Your task to perform on an android device: toggle priority inbox in the gmail app Image 0: 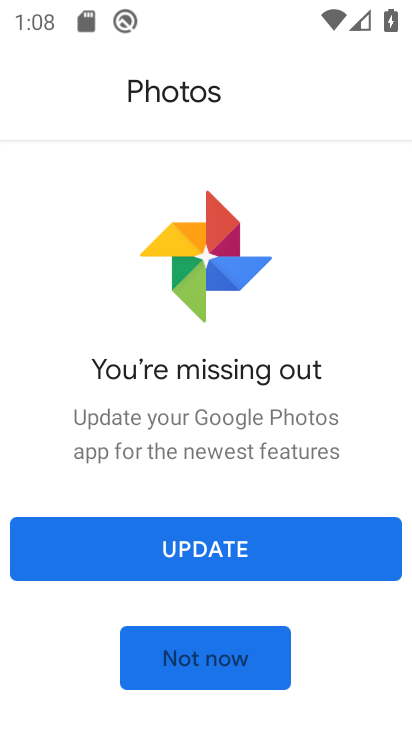
Step 0: press home button
Your task to perform on an android device: toggle priority inbox in the gmail app Image 1: 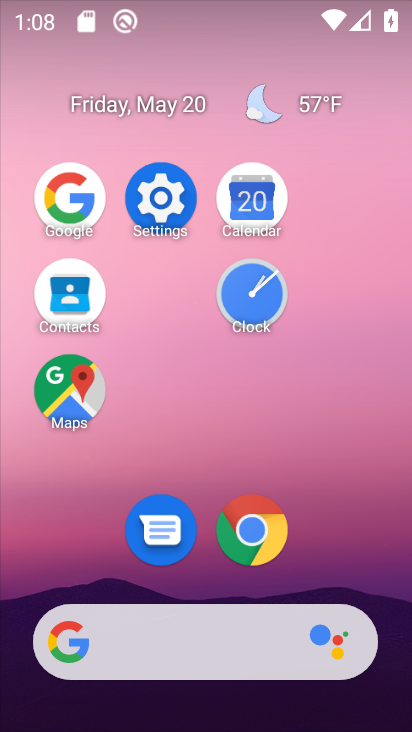
Step 1: drag from (369, 521) to (362, 176)
Your task to perform on an android device: toggle priority inbox in the gmail app Image 2: 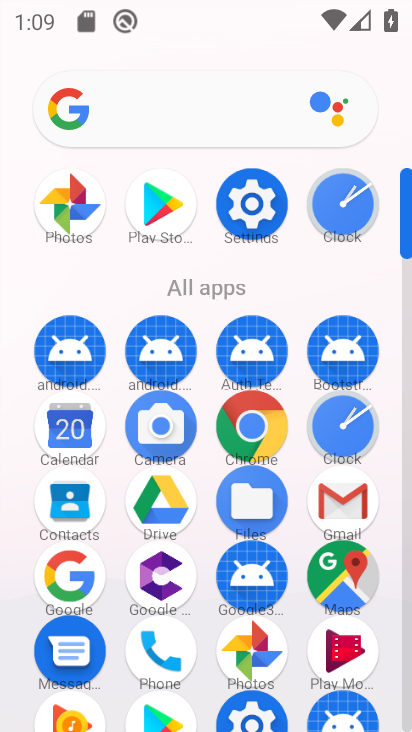
Step 2: drag from (355, 506) to (188, 306)
Your task to perform on an android device: toggle priority inbox in the gmail app Image 3: 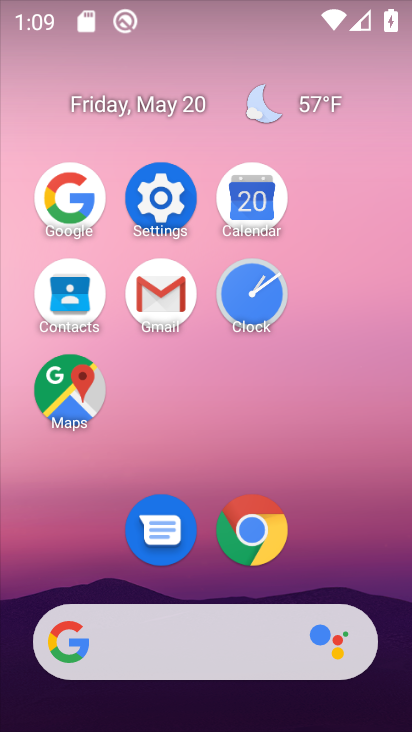
Step 3: click (183, 288)
Your task to perform on an android device: toggle priority inbox in the gmail app Image 4: 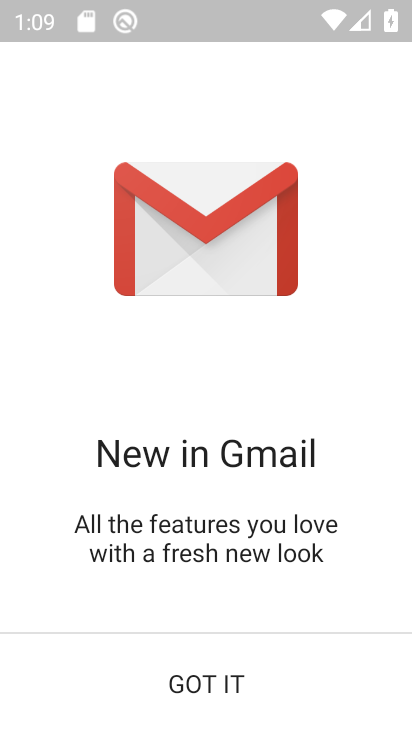
Step 4: click (280, 683)
Your task to perform on an android device: toggle priority inbox in the gmail app Image 5: 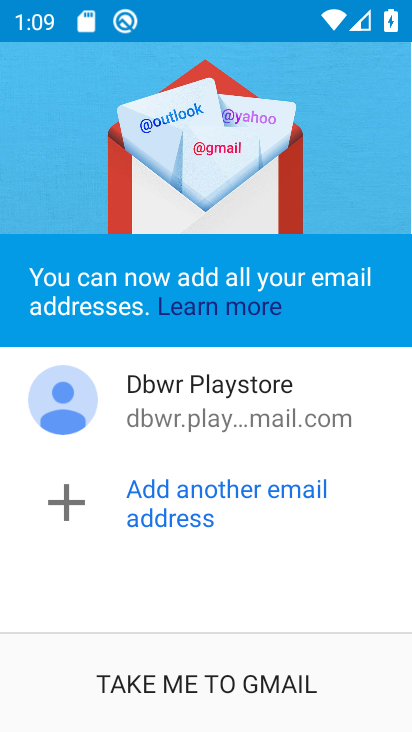
Step 5: click (280, 683)
Your task to perform on an android device: toggle priority inbox in the gmail app Image 6: 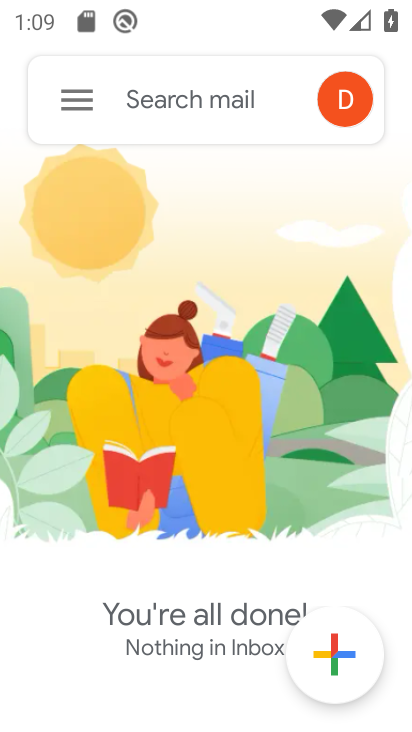
Step 6: click (85, 108)
Your task to perform on an android device: toggle priority inbox in the gmail app Image 7: 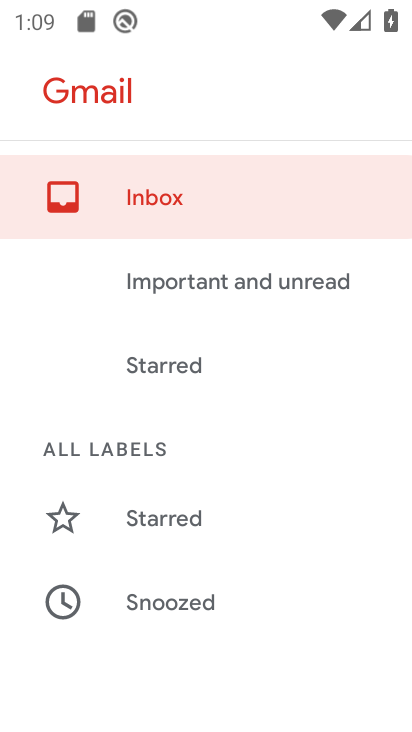
Step 7: drag from (138, 541) to (206, 120)
Your task to perform on an android device: toggle priority inbox in the gmail app Image 8: 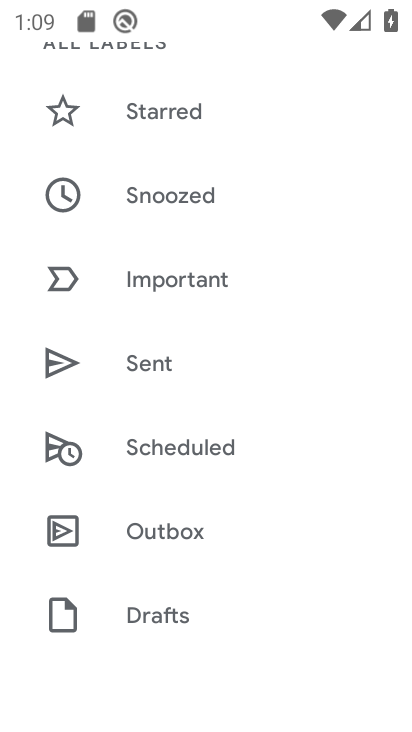
Step 8: drag from (217, 590) to (216, 175)
Your task to perform on an android device: toggle priority inbox in the gmail app Image 9: 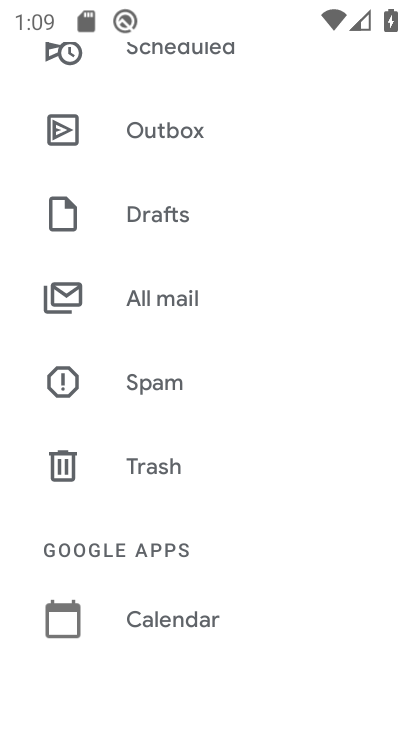
Step 9: drag from (211, 616) to (228, 174)
Your task to perform on an android device: toggle priority inbox in the gmail app Image 10: 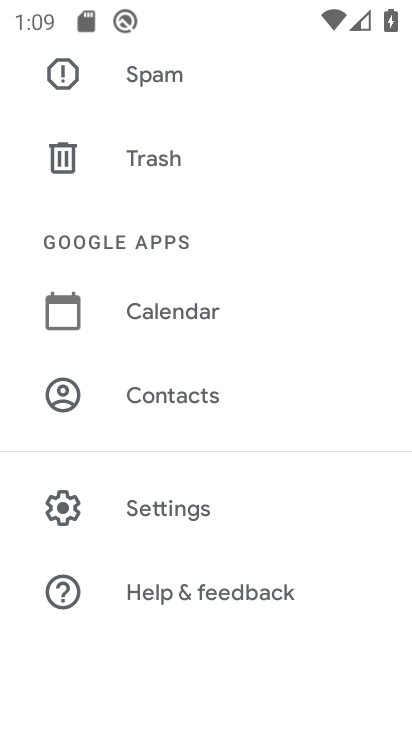
Step 10: click (229, 504)
Your task to perform on an android device: toggle priority inbox in the gmail app Image 11: 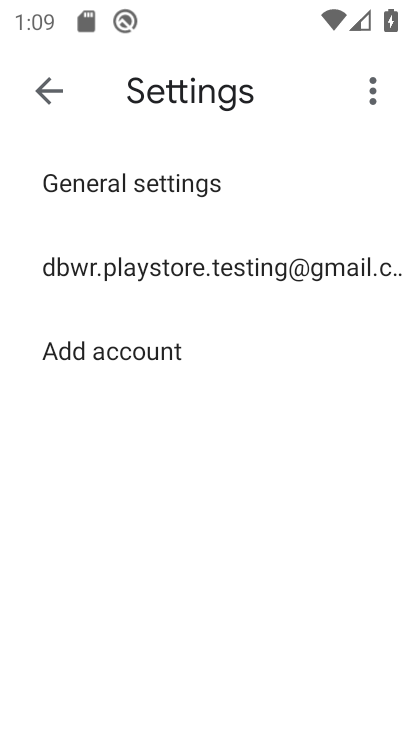
Step 11: click (201, 259)
Your task to perform on an android device: toggle priority inbox in the gmail app Image 12: 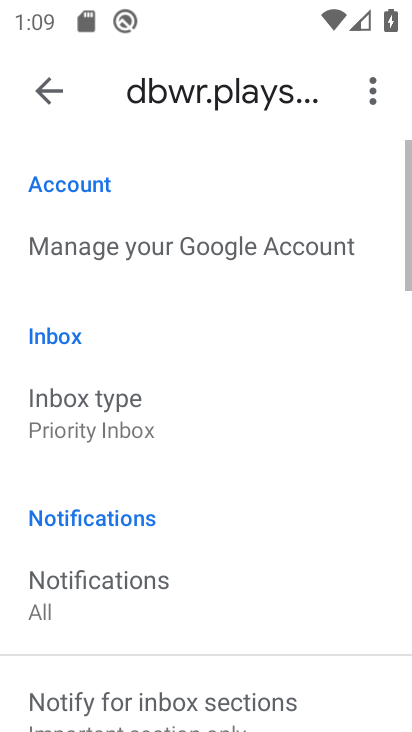
Step 12: click (177, 419)
Your task to perform on an android device: toggle priority inbox in the gmail app Image 13: 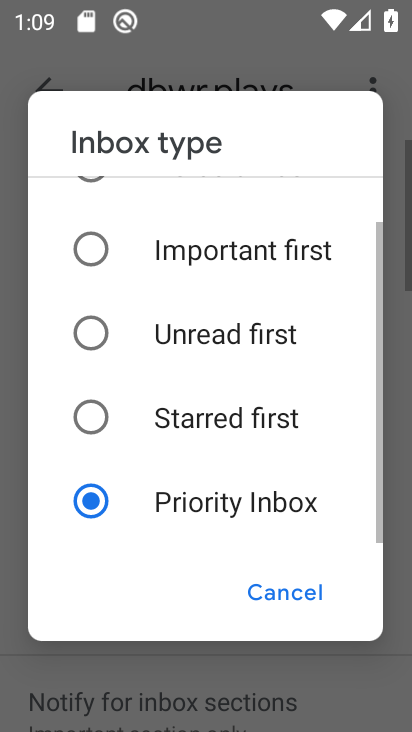
Step 13: click (180, 242)
Your task to perform on an android device: toggle priority inbox in the gmail app Image 14: 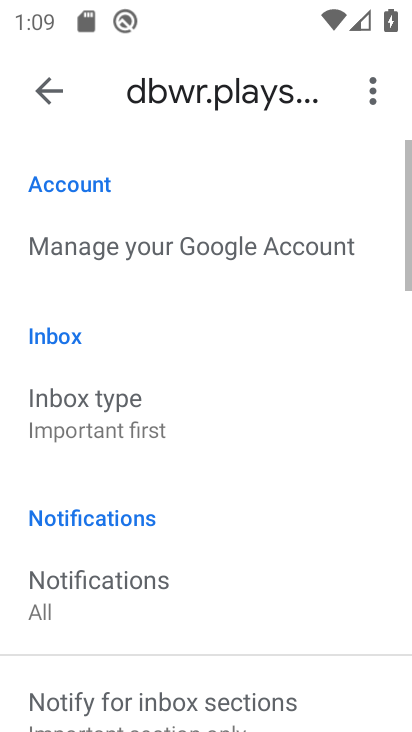
Step 14: task complete